Your task to perform on an android device: delete the emails in spam in the gmail app Image 0: 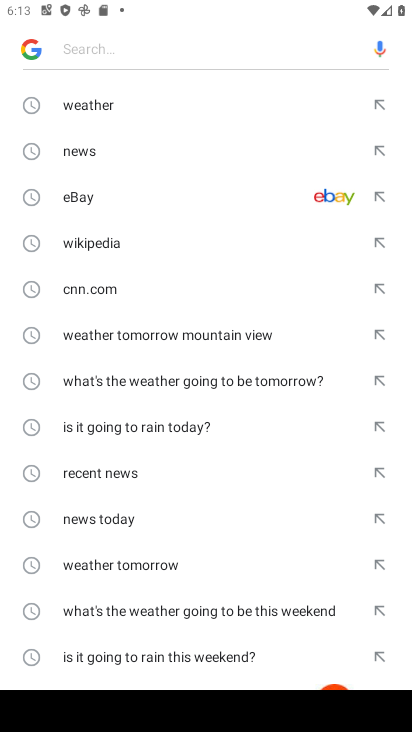
Step 0: press back button
Your task to perform on an android device: delete the emails in spam in the gmail app Image 1: 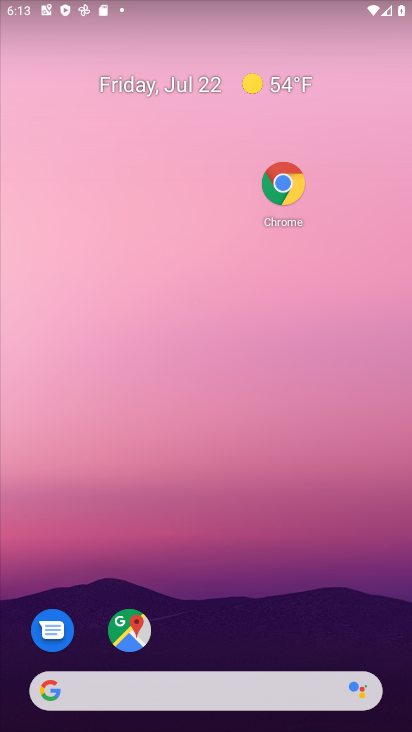
Step 1: drag from (233, 547) to (241, 195)
Your task to perform on an android device: delete the emails in spam in the gmail app Image 2: 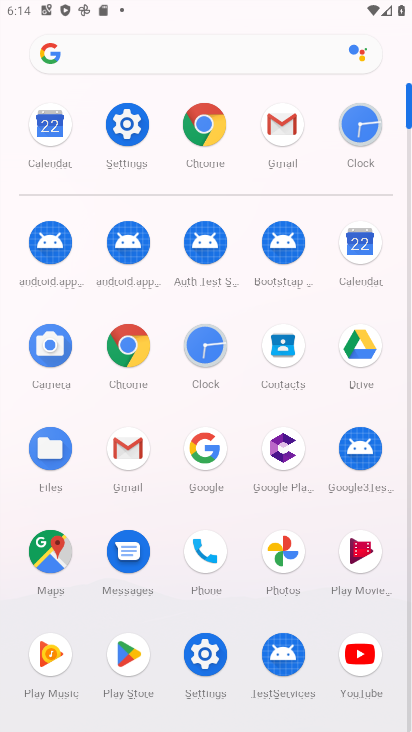
Step 2: click (124, 437)
Your task to perform on an android device: delete the emails in spam in the gmail app Image 3: 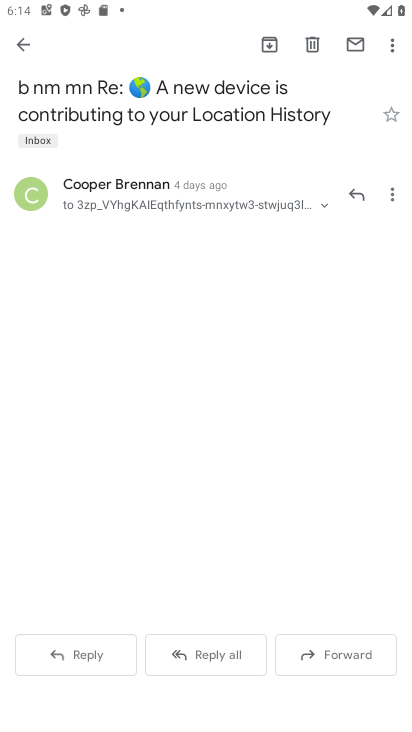
Step 3: click (23, 44)
Your task to perform on an android device: delete the emails in spam in the gmail app Image 4: 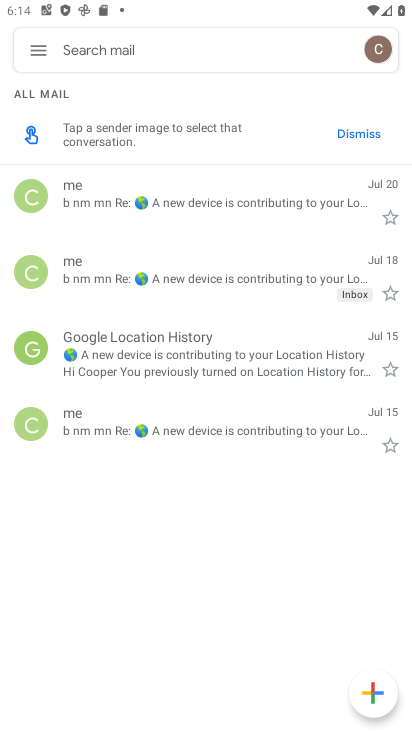
Step 4: click (35, 44)
Your task to perform on an android device: delete the emails in spam in the gmail app Image 5: 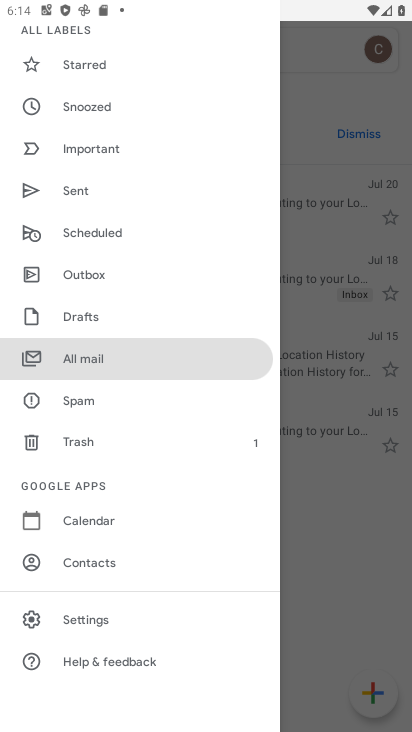
Step 5: click (113, 396)
Your task to perform on an android device: delete the emails in spam in the gmail app Image 6: 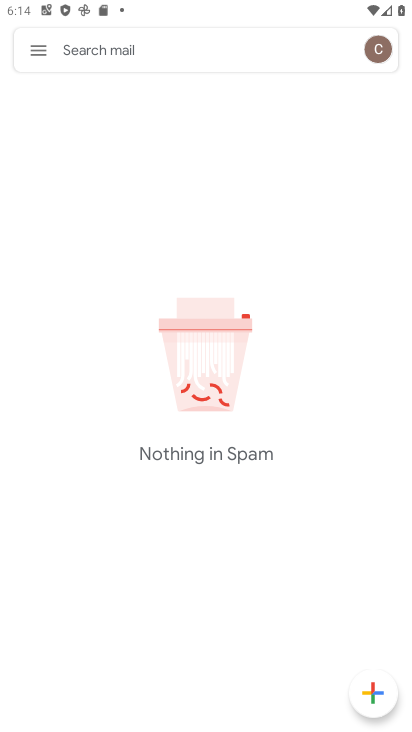
Step 6: task complete